Your task to perform on an android device: choose inbox layout in the gmail app Image 0: 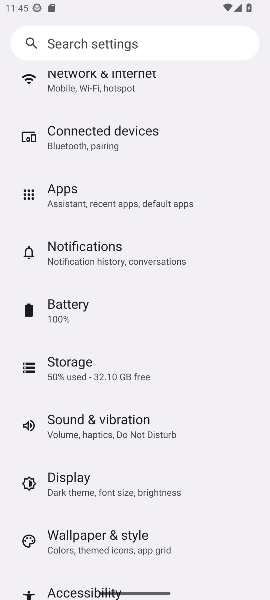
Step 0: press back button
Your task to perform on an android device: choose inbox layout in the gmail app Image 1: 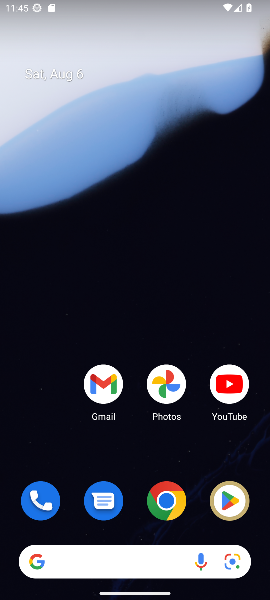
Step 1: click (106, 390)
Your task to perform on an android device: choose inbox layout in the gmail app Image 2: 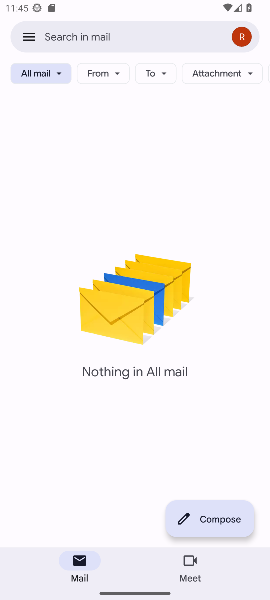
Step 2: click (29, 31)
Your task to perform on an android device: choose inbox layout in the gmail app Image 3: 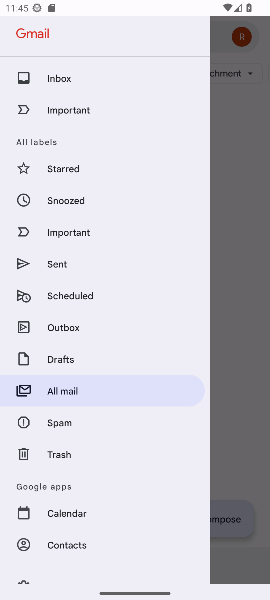
Step 3: drag from (75, 322) to (61, 516)
Your task to perform on an android device: choose inbox layout in the gmail app Image 4: 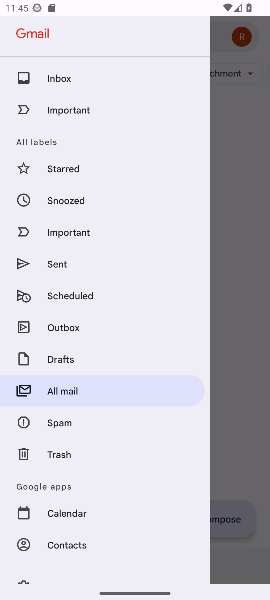
Step 4: drag from (82, 276) to (59, 596)
Your task to perform on an android device: choose inbox layout in the gmail app Image 5: 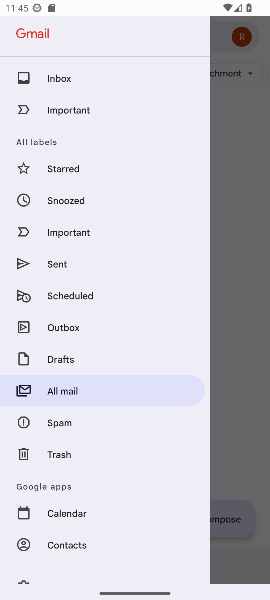
Step 5: drag from (79, 165) to (49, 550)
Your task to perform on an android device: choose inbox layout in the gmail app Image 6: 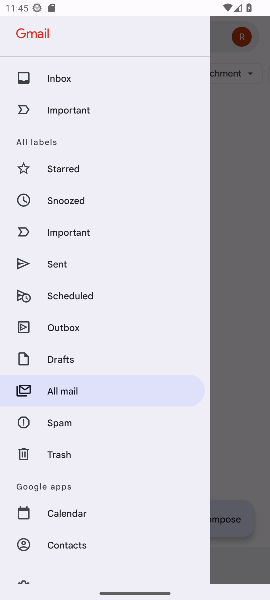
Step 6: drag from (69, 449) to (70, 219)
Your task to perform on an android device: choose inbox layout in the gmail app Image 7: 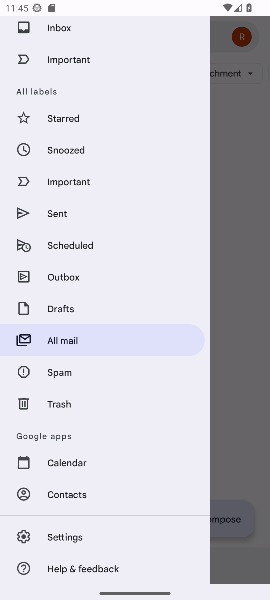
Step 7: click (56, 539)
Your task to perform on an android device: choose inbox layout in the gmail app Image 8: 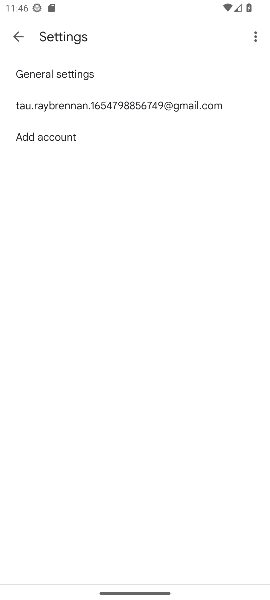
Step 8: click (113, 103)
Your task to perform on an android device: choose inbox layout in the gmail app Image 9: 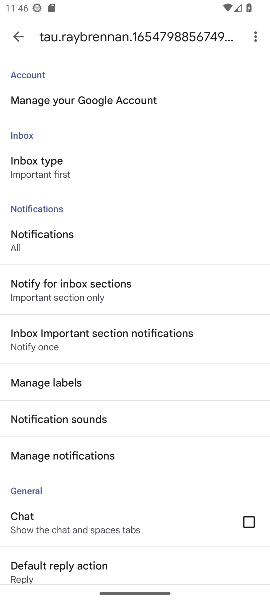
Step 9: click (35, 172)
Your task to perform on an android device: choose inbox layout in the gmail app Image 10: 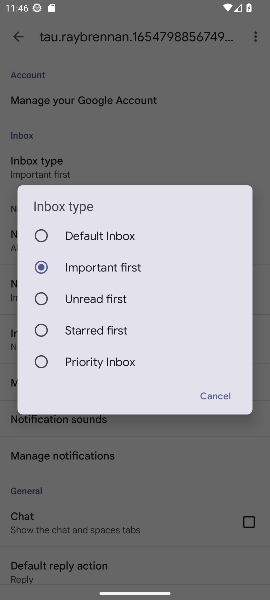
Step 10: click (35, 232)
Your task to perform on an android device: choose inbox layout in the gmail app Image 11: 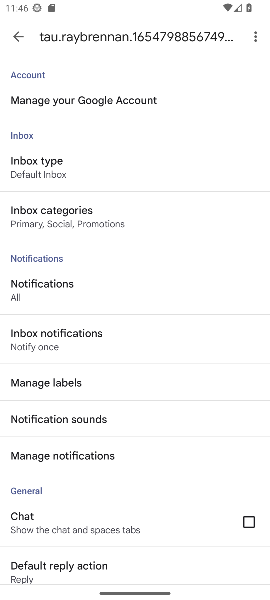
Step 11: task complete